Your task to perform on an android device: turn off smart reply in the gmail app Image 0: 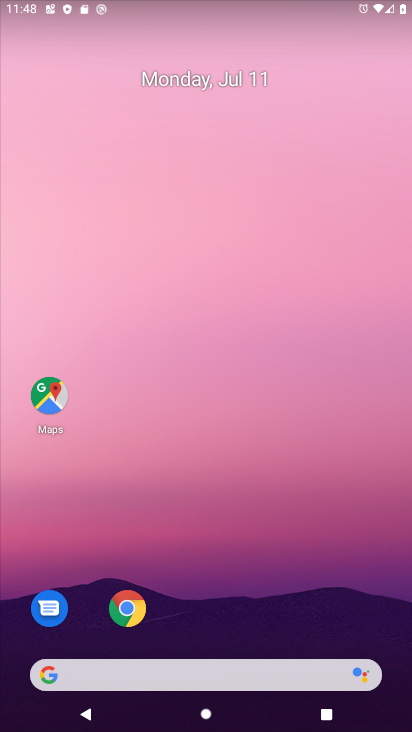
Step 0: drag from (172, 673) to (216, 154)
Your task to perform on an android device: turn off smart reply in the gmail app Image 1: 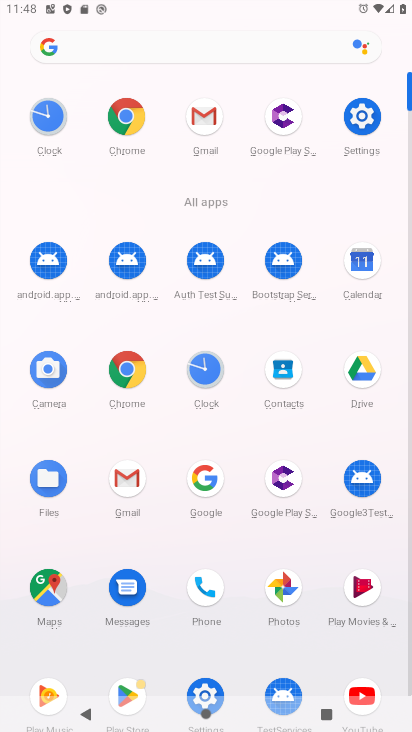
Step 1: click (201, 129)
Your task to perform on an android device: turn off smart reply in the gmail app Image 2: 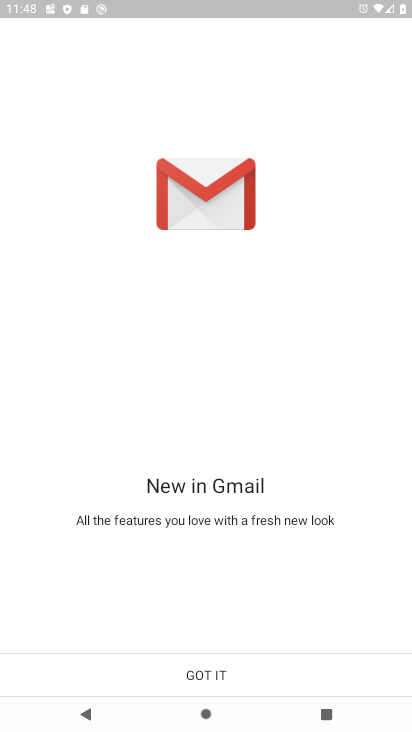
Step 2: click (190, 684)
Your task to perform on an android device: turn off smart reply in the gmail app Image 3: 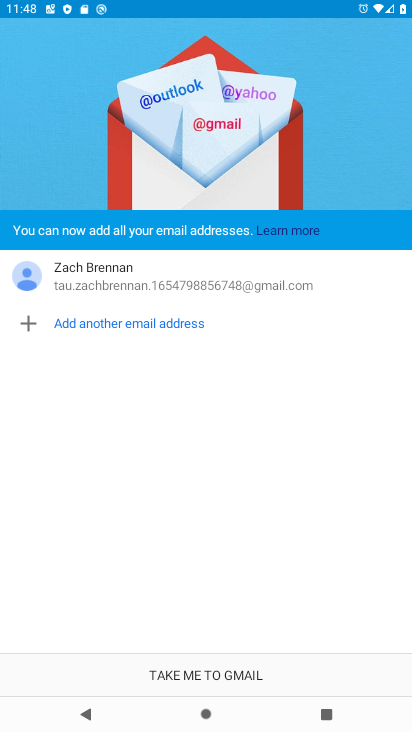
Step 3: click (190, 684)
Your task to perform on an android device: turn off smart reply in the gmail app Image 4: 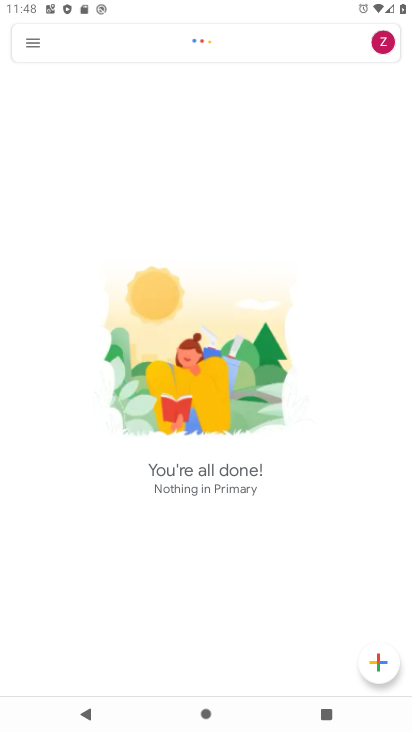
Step 4: click (27, 43)
Your task to perform on an android device: turn off smart reply in the gmail app Image 5: 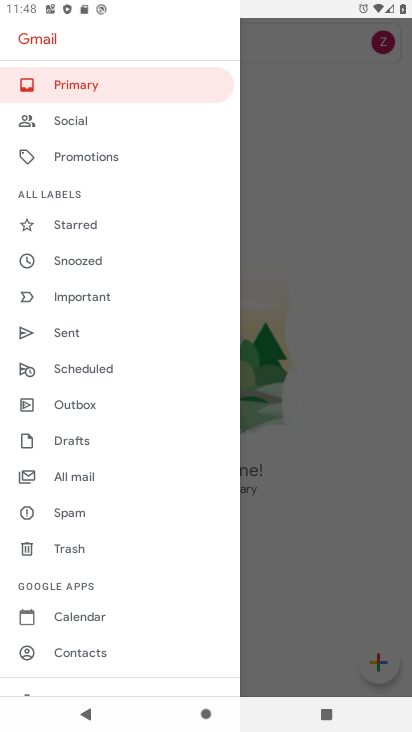
Step 5: drag from (68, 651) to (75, 194)
Your task to perform on an android device: turn off smart reply in the gmail app Image 6: 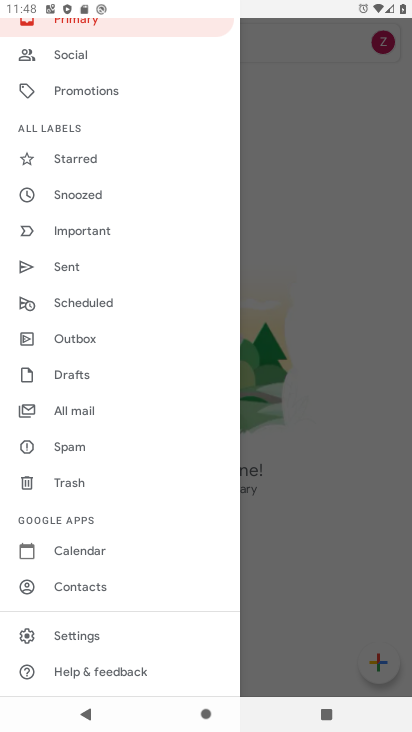
Step 6: click (67, 642)
Your task to perform on an android device: turn off smart reply in the gmail app Image 7: 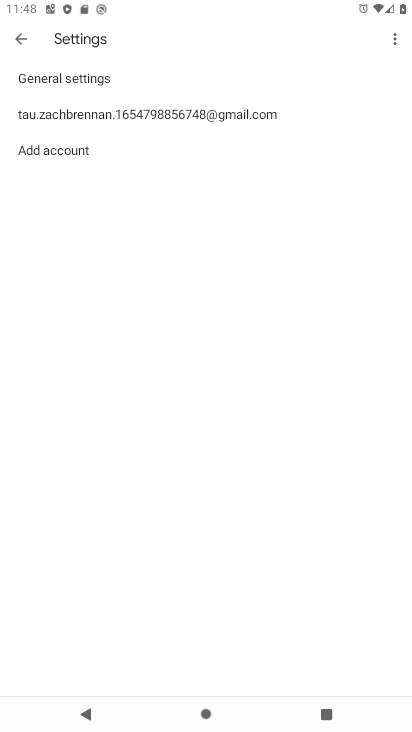
Step 7: click (96, 113)
Your task to perform on an android device: turn off smart reply in the gmail app Image 8: 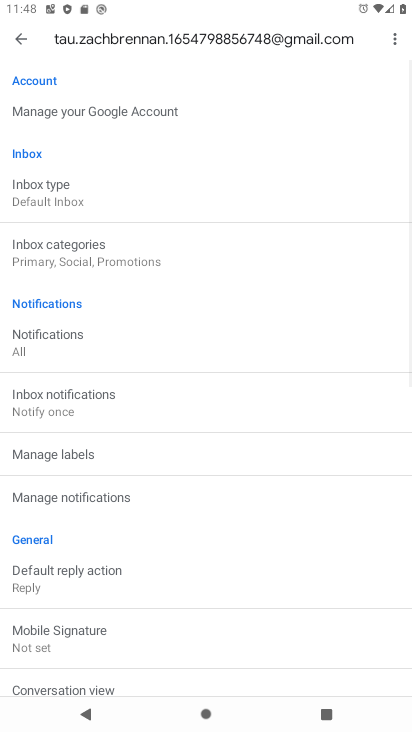
Step 8: drag from (71, 672) to (61, 301)
Your task to perform on an android device: turn off smart reply in the gmail app Image 9: 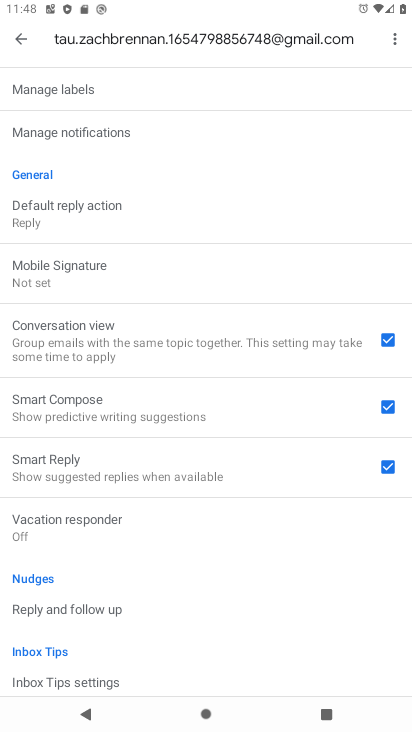
Step 9: click (66, 466)
Your task to perform on an android device: turn off smart reply in the gmail app Image 10: 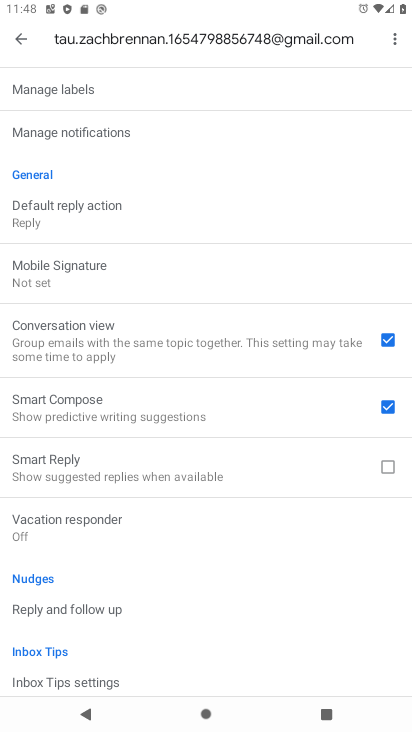
Step 10: click (66, 466)
Your task to perform on an android device: turn off smart reply in the gmail app Image 11: 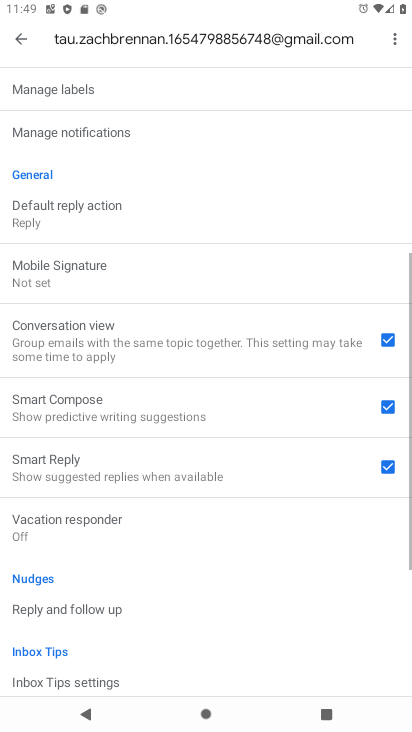
Step 11: click (66, 466)
Your task to perform on an android device: turn off smart reply in the gmail app Image 12: 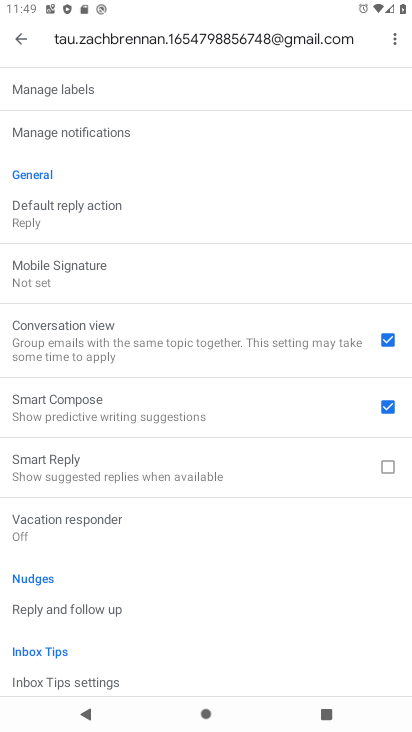
Step 12: task complete